Your task to perform on an android device: Open notification settings Image 0: 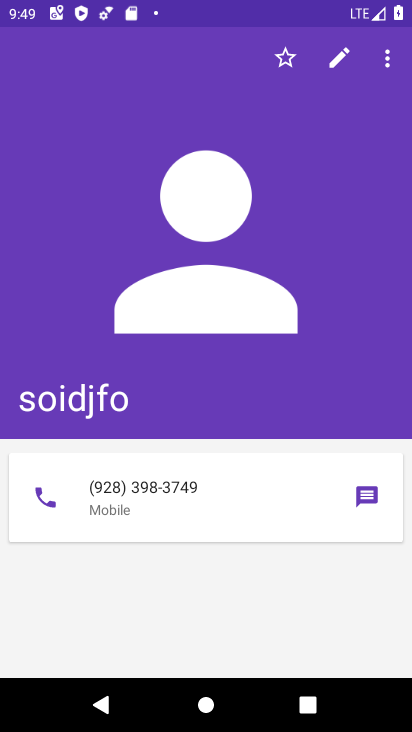
Step 0: press home button
Your task to perform on an android device: Open notification settings Image 1: 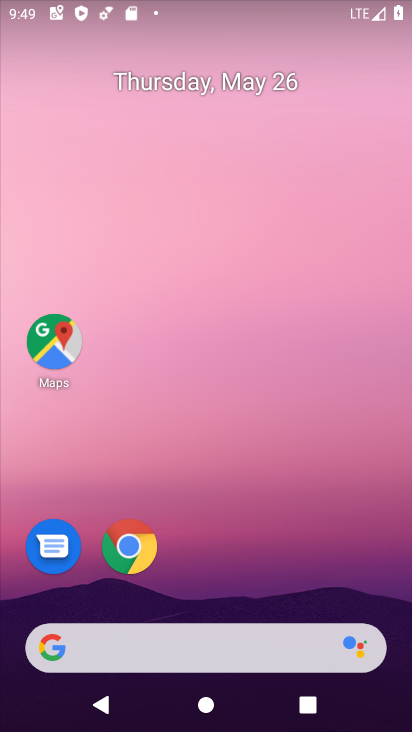
Step 1: drag from (371, 562) to (363, 193)
Your task to perform on an android device: Open notification settings Image 2: 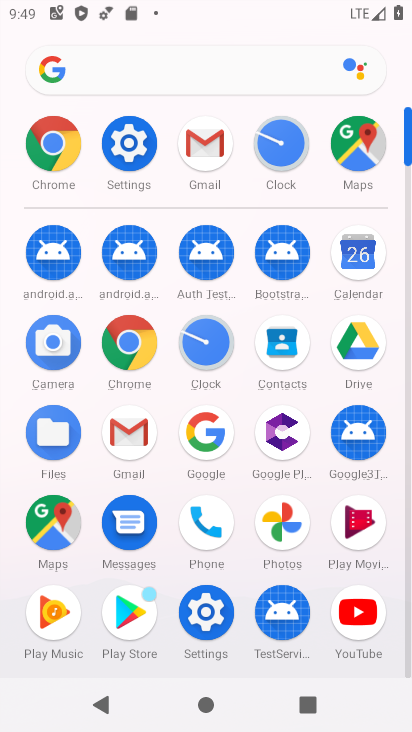
Step 2: click (210, 609)
Your task to perform on an android device: Open notification settings Image 3: 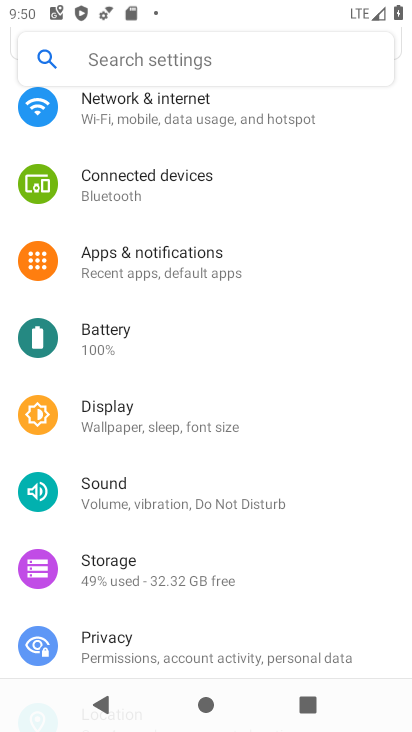
Step 3: click (151, 261)
Your task to perform on an android device: Open notification settings Image 4: 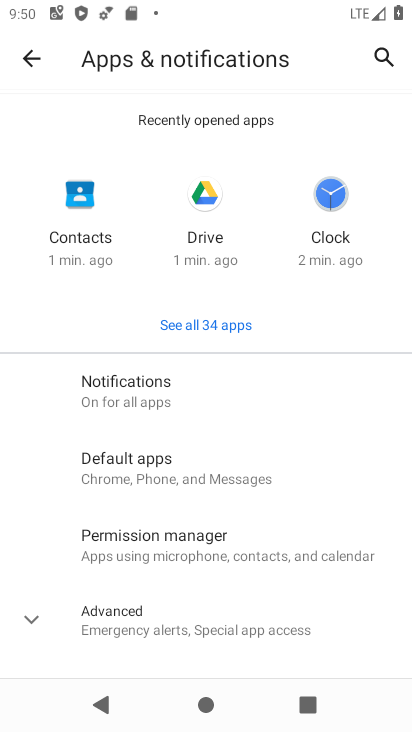
Step 4: click (127, 403)
Your task to perform on an android device: Open notification settings Image 5: 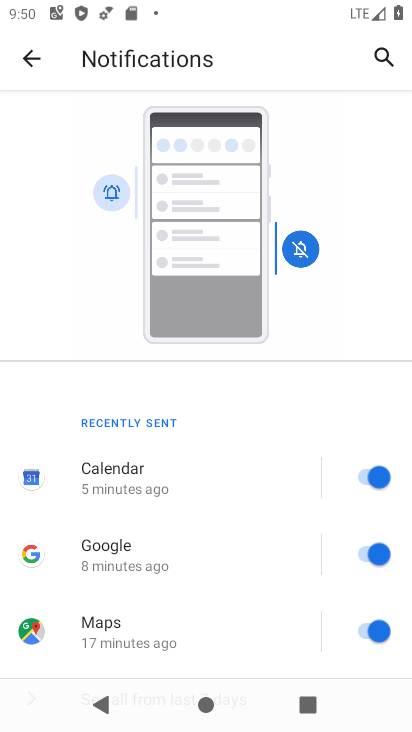
Step 5: task complete